Your task to perform on an android device: Search for razer thresher on ebay, select the first entry, add it to the cart, then select checkout. Image 0: 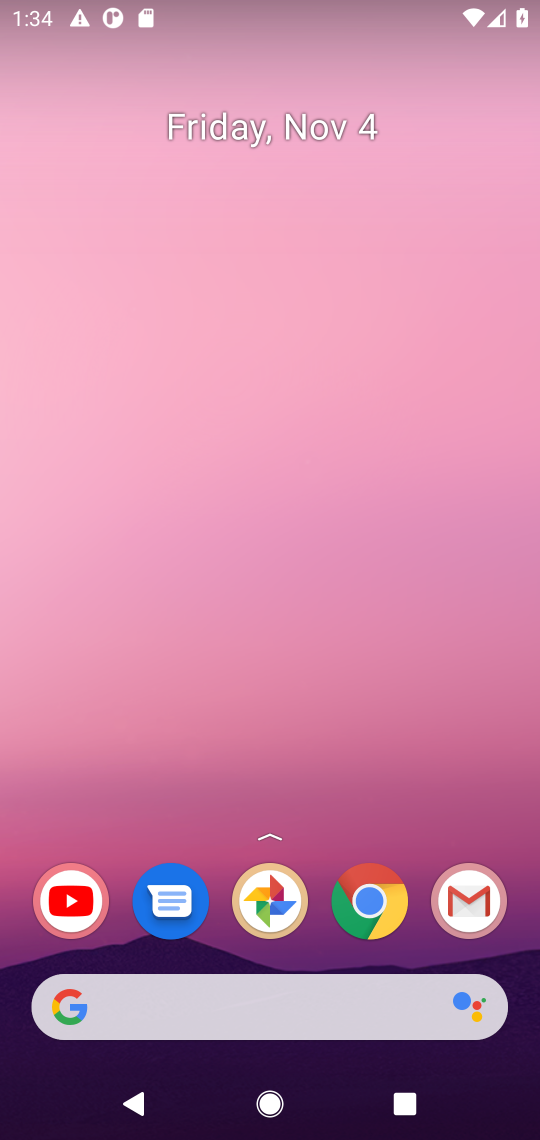
Step 0: click (376, 895)
Your task to perform on an android device: Search for razer thresher on ebay, select the first entry, add it to the cart, then select checkout. Image 1: 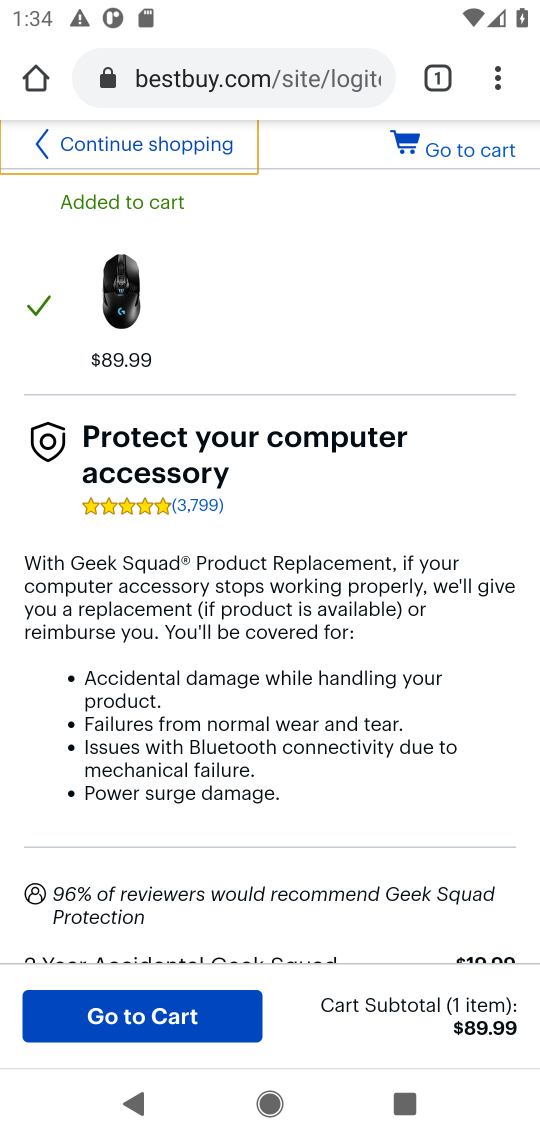
Step 1: click (301, 81)
Your task to perform on an android device: Search for razer thresher on ebay, select the first entry, add it to the cart, then select checkout. Image 2: 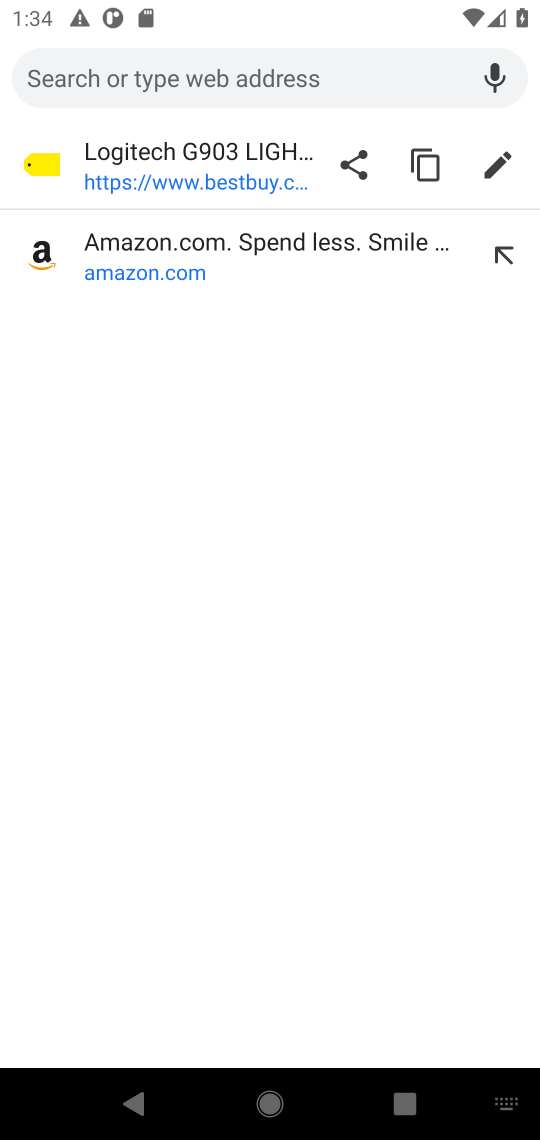
Step 2: press enter
Your task to perform on an android device: Search for razer thresher on ebay, select the first entry, add it to the cart, then select checkout. Image 3: 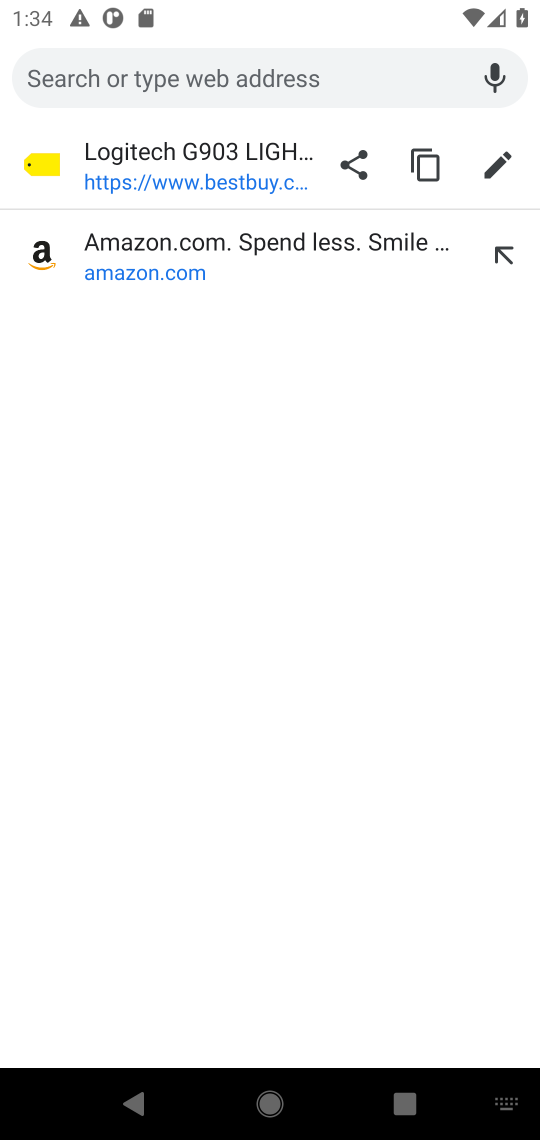
Step 3: type "ebay"
Your task to perform on an android device: Search for razer thresher on ebay, select the first entry, add it to the cart, then select checkout. Image 4: 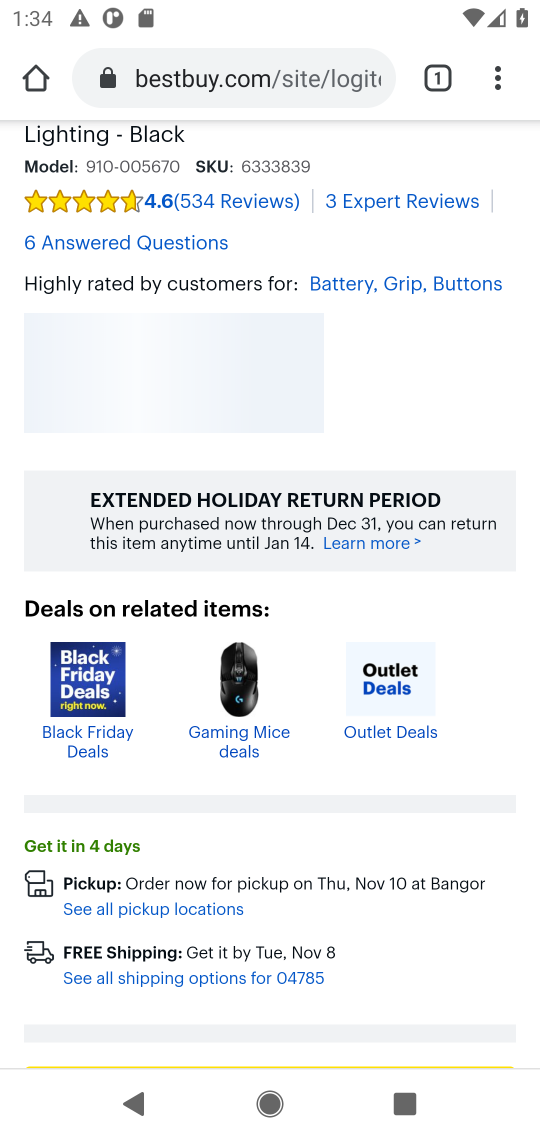
Step 4: click (29, 73)
Your task to perform on an android device: Search for razer thresher on ebay, select the first entry, add it to the cart, then select checkout. Image 5: 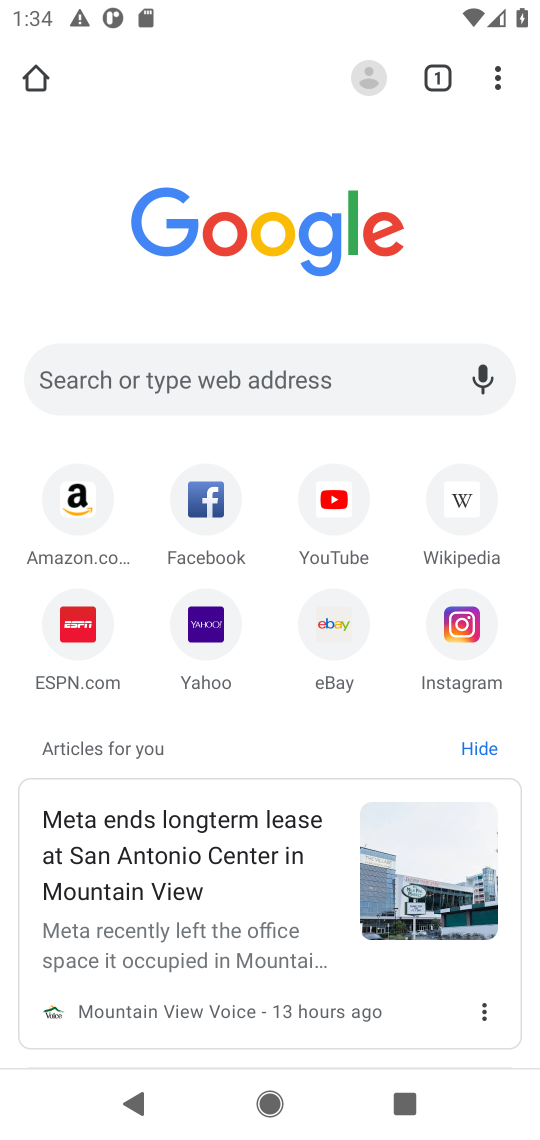
Step 5: click (351, 379)
Your task to perform on an android device: Search for razer thresher on ebay, select the first entry, add it to the cart, then select checkout. Image 6: 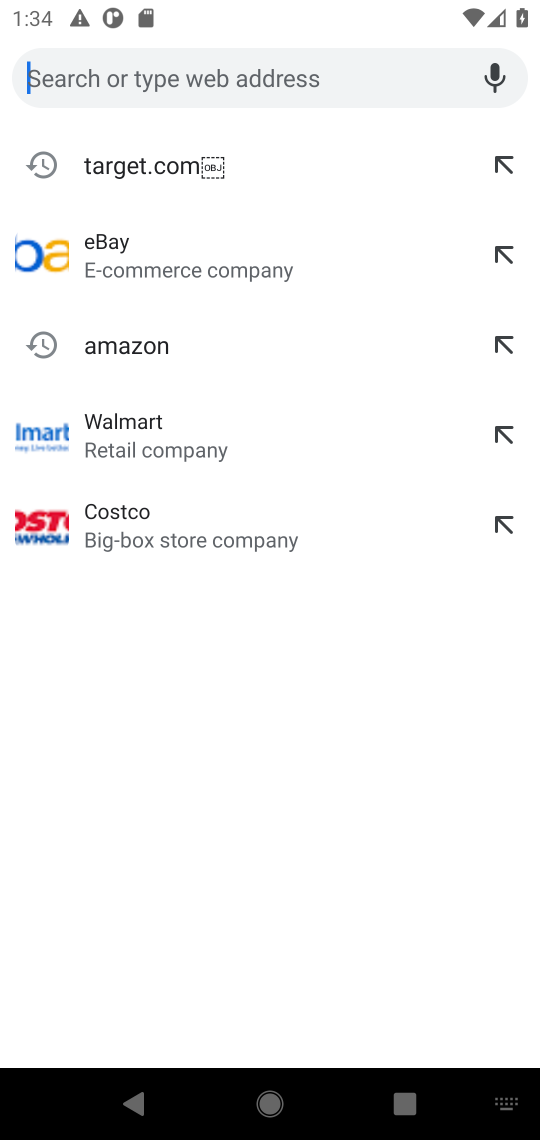
Step 6: type "ebay"
Your task to perform on an android device: Search for razer thresher on ebay, select the first entry, add it to the cart, then select checkout. Image 7: 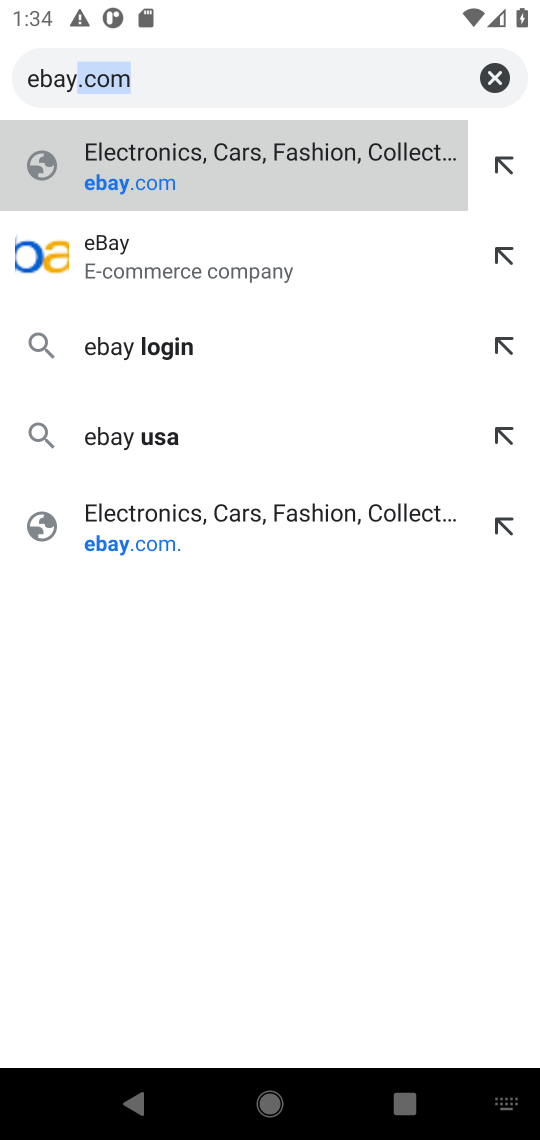
Step 7: press enter
Your task to perform on an android device: Search for razer thresher on ebay, select the first entry, add it to the cart, then select checkout. Image 8: 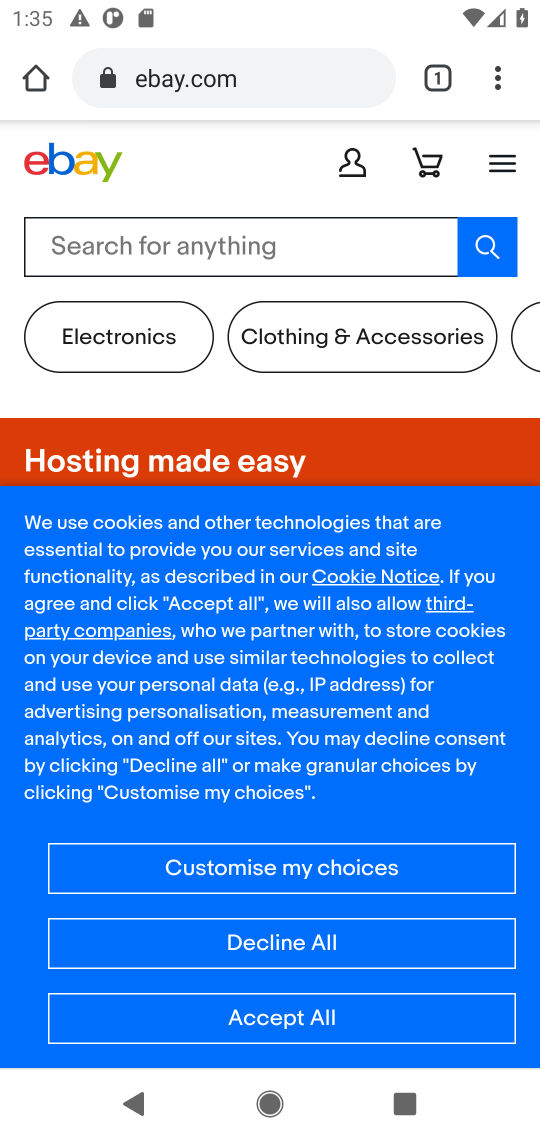
Step 8: click (198, 248)
Your task to perform on an android device: Search for razer thresher on ebay, select the first entry, add it to the cart, then select checkout. Image 9: 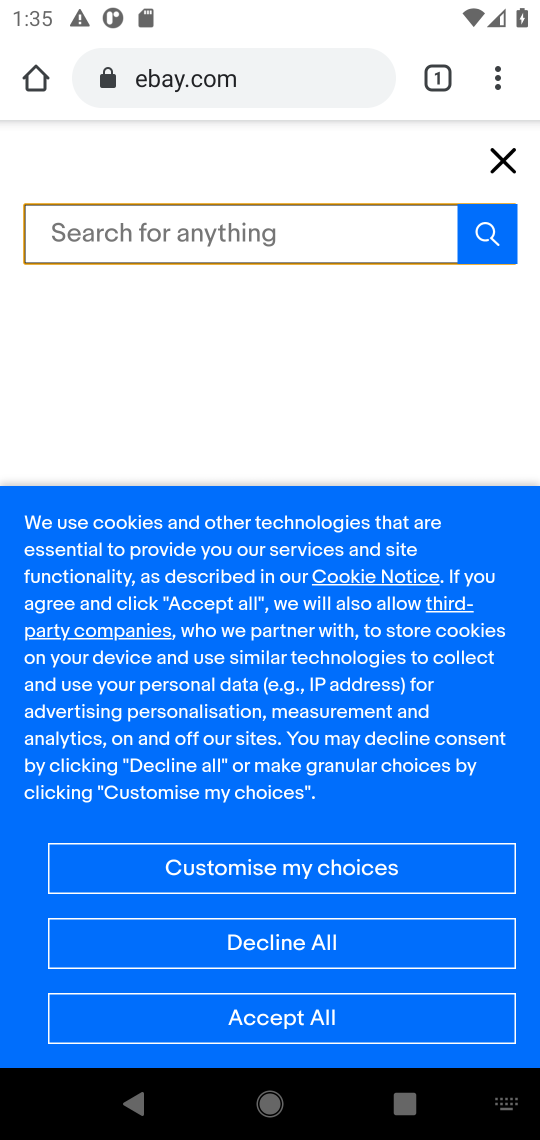
Step 9: type "razer thresher"
Your task to perform on an android device: Search for razer thresher on ebay, select the first entry, add it to the cart, then select checkout. Image 10: 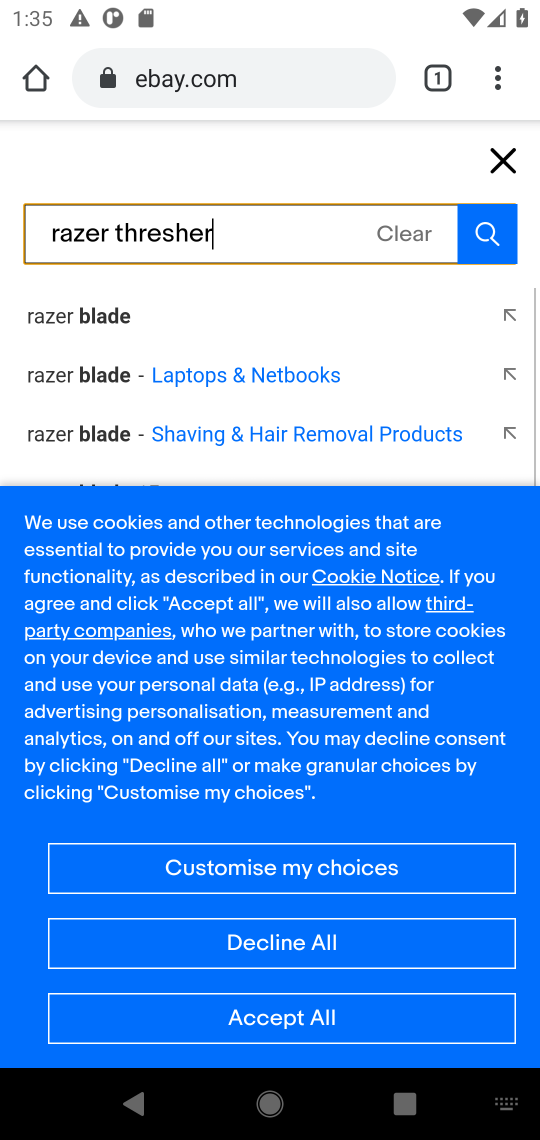
Step 10: press enter
Your task to perform on an android device: Search for razer thresher on ebay, select the first entry, add it to the cart, then select checkout. Image 11: 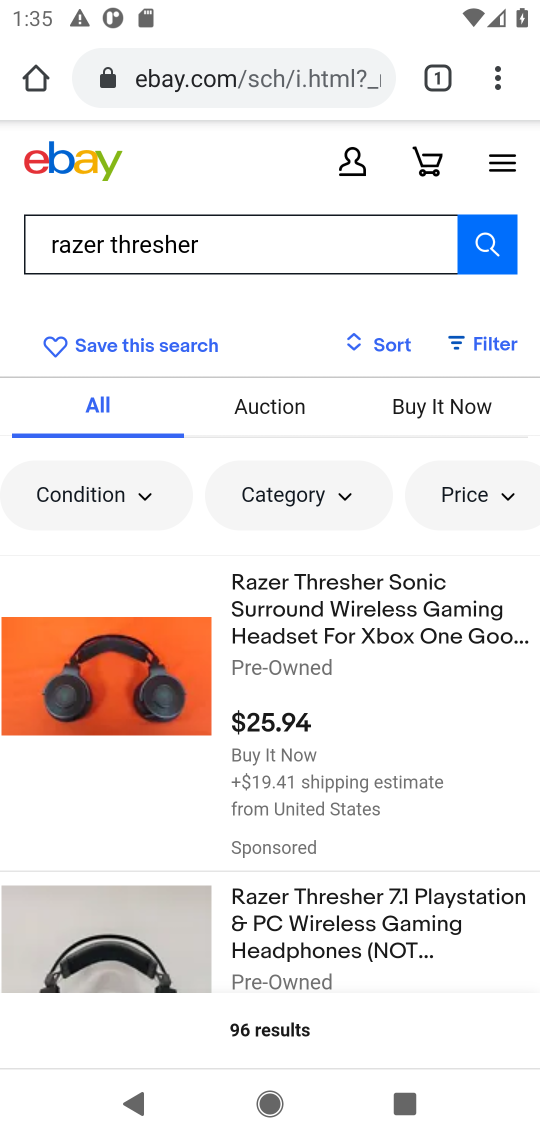
Step 11: click (183, 662)
Your task to perform on an android device: Search for razer thresher on ebay, select the first entry, add it to the cart, then select checkout. Image 12: 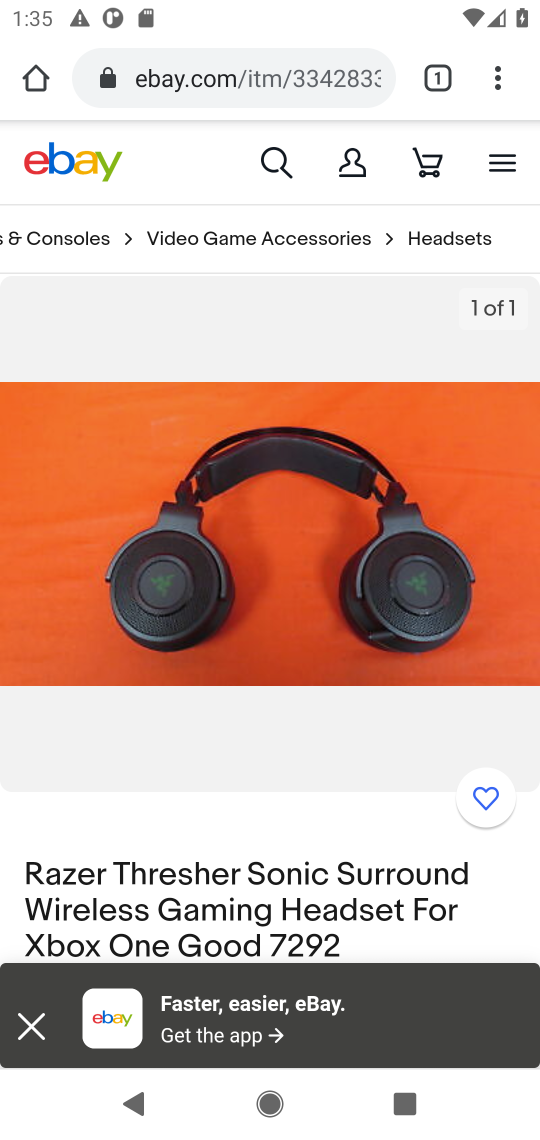
Step 12: drag from (338, 893) to (317, 244)
Your task to perform on an android device: Search for razer thresher on ebay, select the first entry, add it to the cart, then select checkout. Image 13: 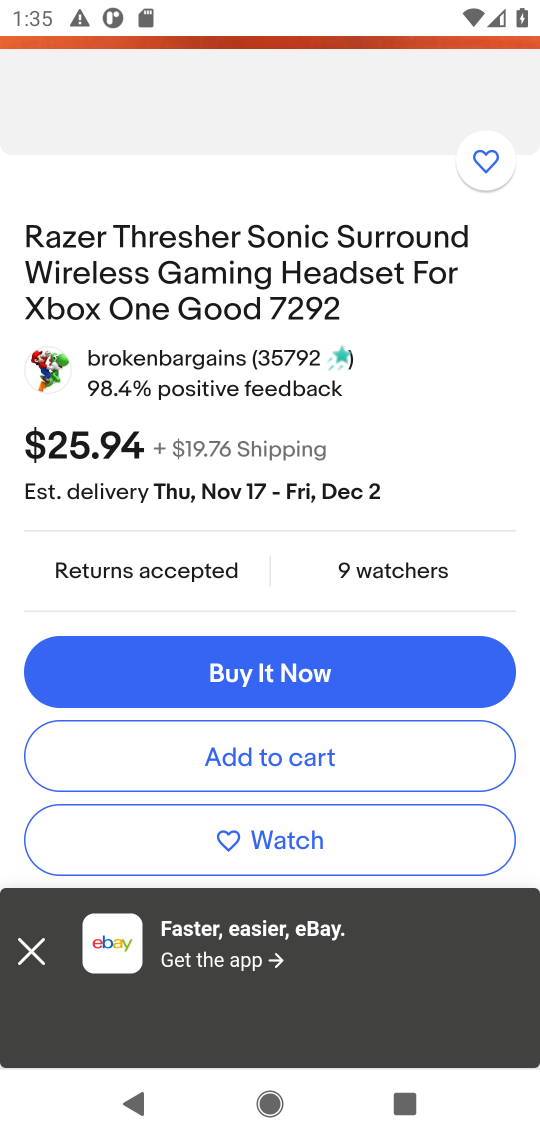
Step 13: click (292, 751)
Your task to perform on an android device: Search for razer thresher on ebay, select the first entry, add it to the cart, then select checkout. Image 14: 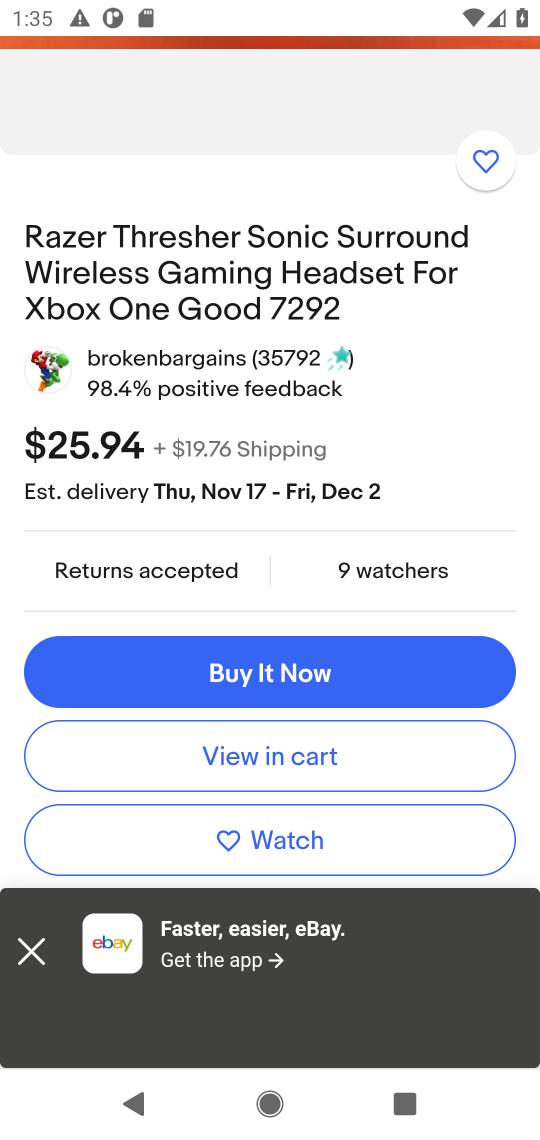
Step 14: click (292, 751)
Your task to perform on an android device: Search for razer thresher on ebay, select the first entry, add it to the cart, then select checkout. Image 15: 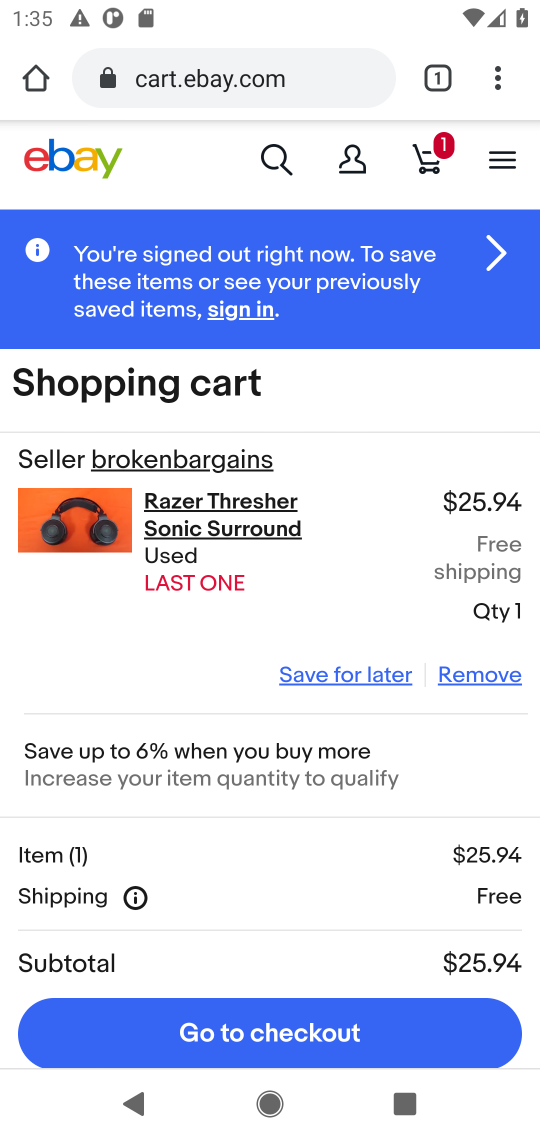
Step 15: click (320, 1021)
Your task to perform on an android device: Search for razer thresher on ebay, select the first entry, add it to the cart, then select checkout. Image 16: 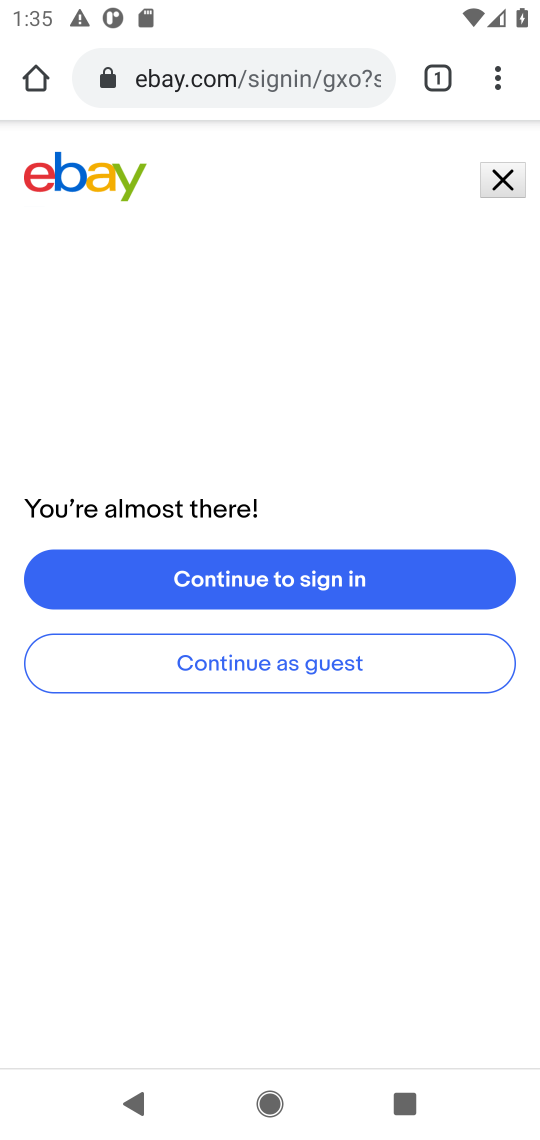
Step 16: task complete